Your task to perform on an android device: change the clock display to show seconds Image 0: 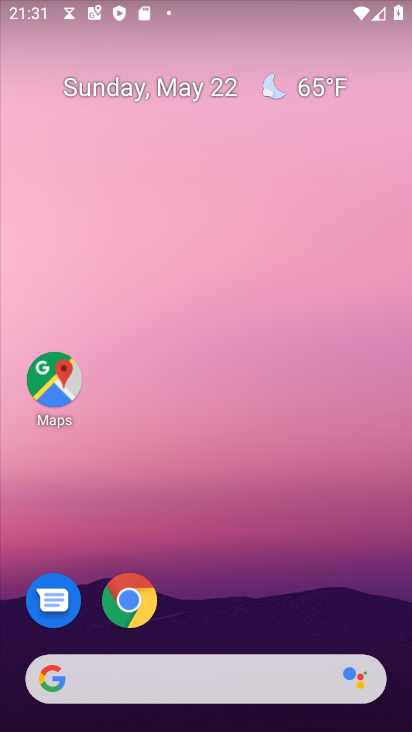
Step 0: drag from (236, 622) to (187, 211)
Your task to perform on an android device: change the clock display to show seconds Image 1: 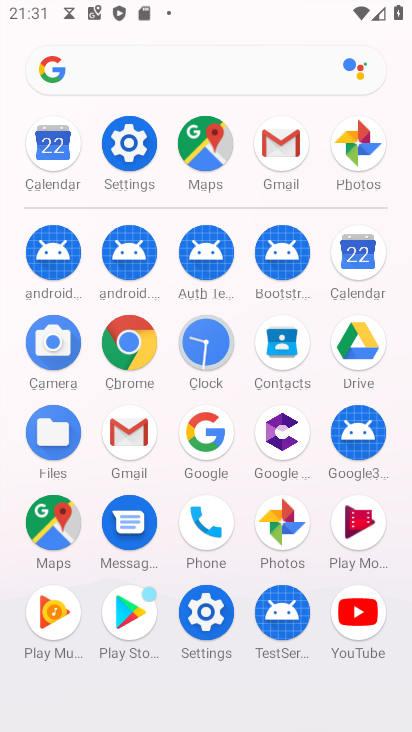
Step 1: press home button
Your task to perform on an android device: change the clock display to show seconds Image 2: 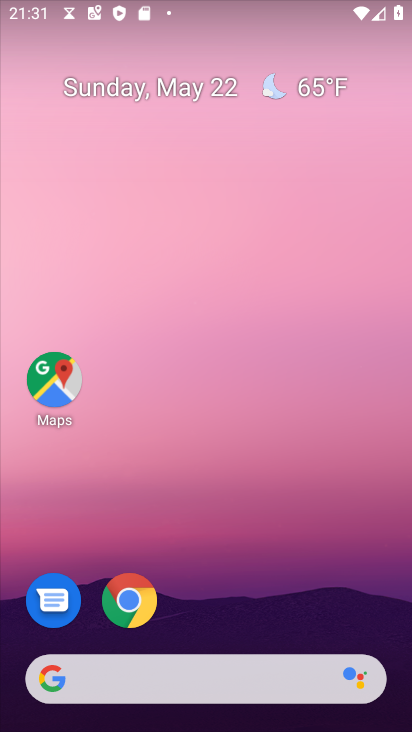
Step 2: drag from (272, 600) to (228, 282)
Your task to perform on an android device: change the clock display to show seconds Image 3: 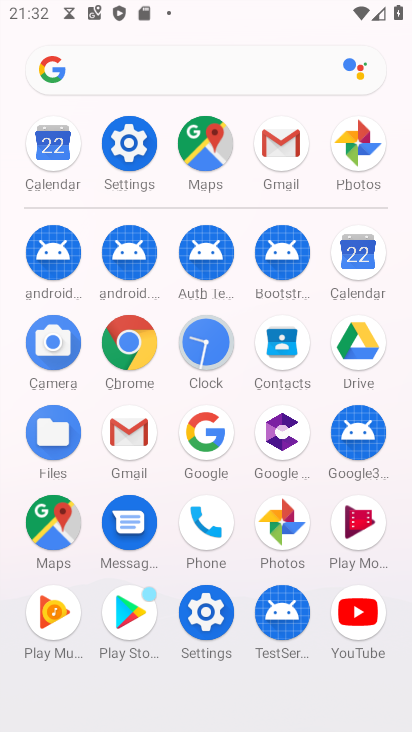
Step 3: click (213, 359)
Your task to perform on an android device: change the clock display to show seconds Image 4: 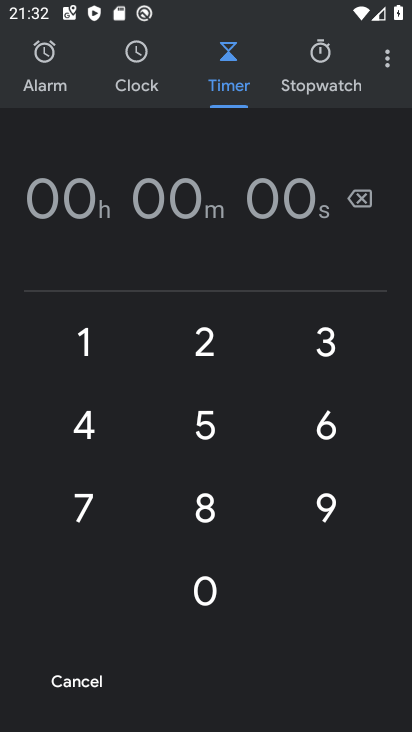
Step 4: click (389, 65)
Your task to perform on an android device: change the clock display to show seconds Image 5: 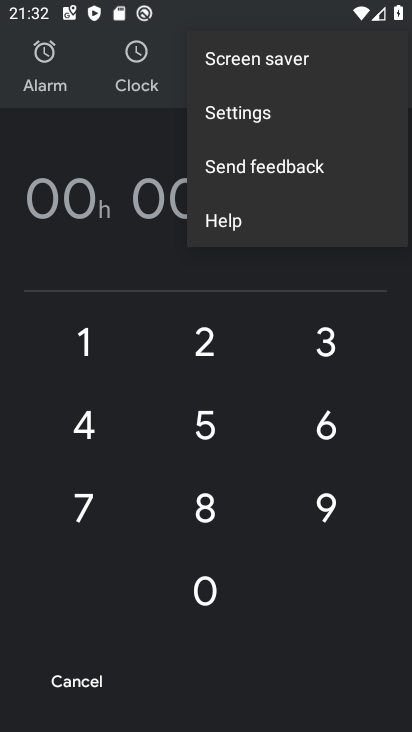
Step 5: click (264, 115)
Your task to perform on an android device: change the clock display to show seconds Image 6: 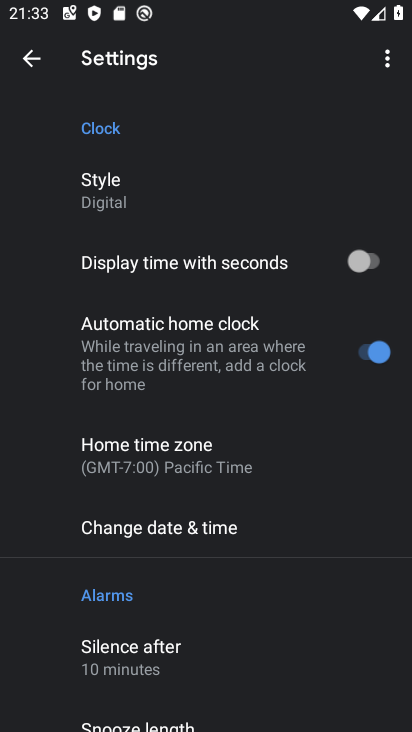
Step 6: click (374, 268)
Your task to perform on an android device: change the clock display to show seconds Image 7: 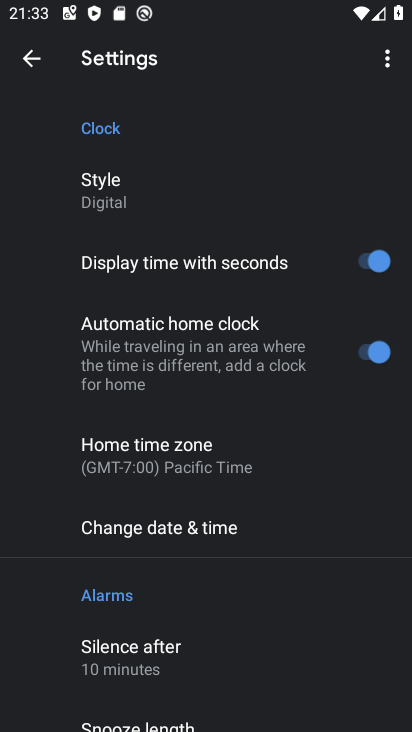
Step 7: task complete